Your task to perform on an android device: refresh tabs in the chrome app Image 0: 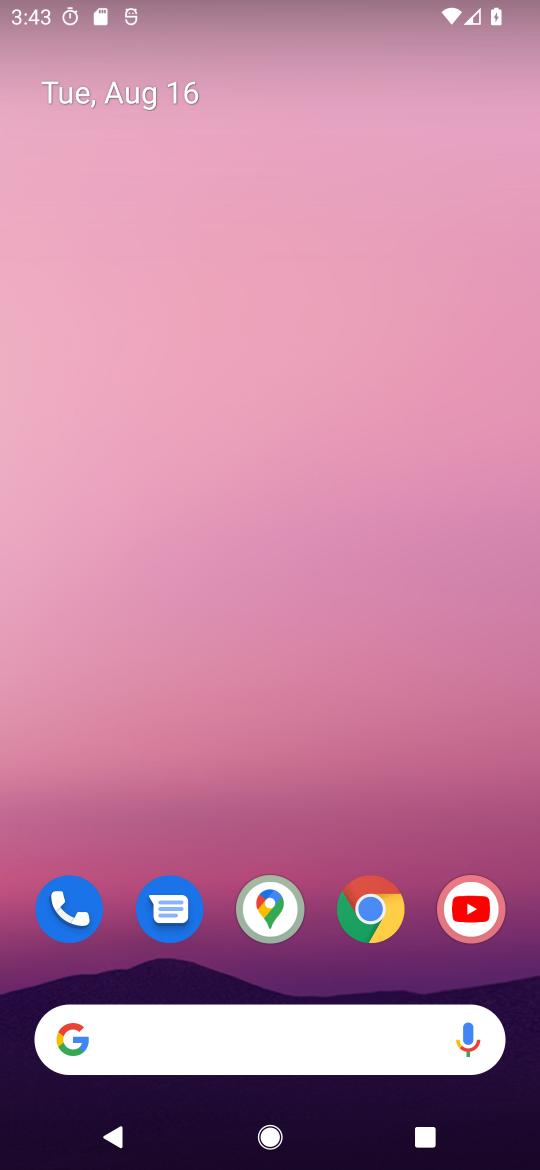
Step 0: drag from (263, 302) to (4, 885)
Your task to perform on an android device: refresh tabs in the chrome app Image 1: 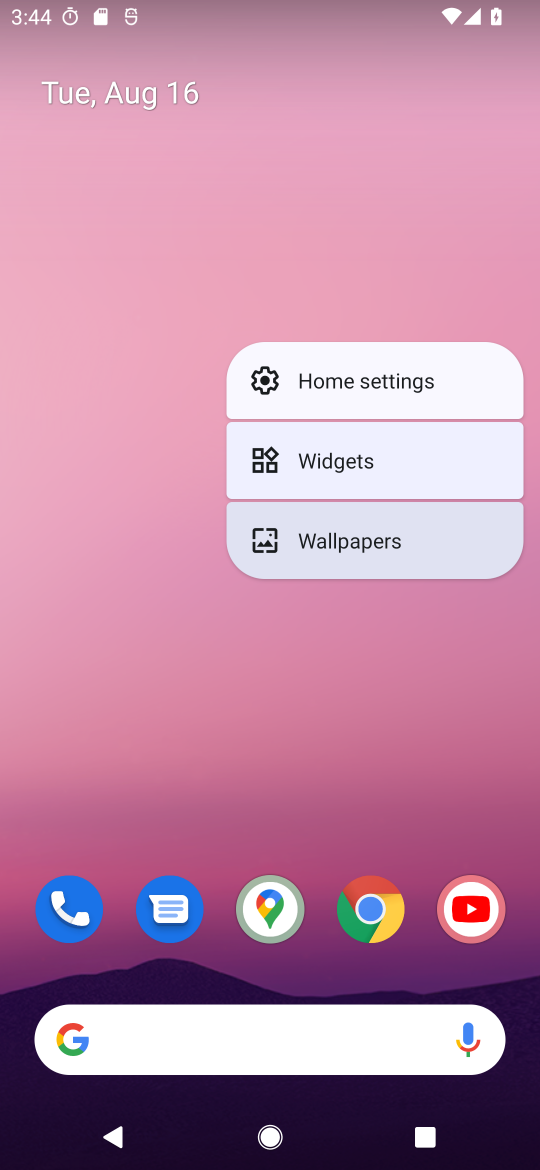
Step 1: click (365, 920)
Your task to perform on an android device: refresh tabs in the chrome app Image 2: 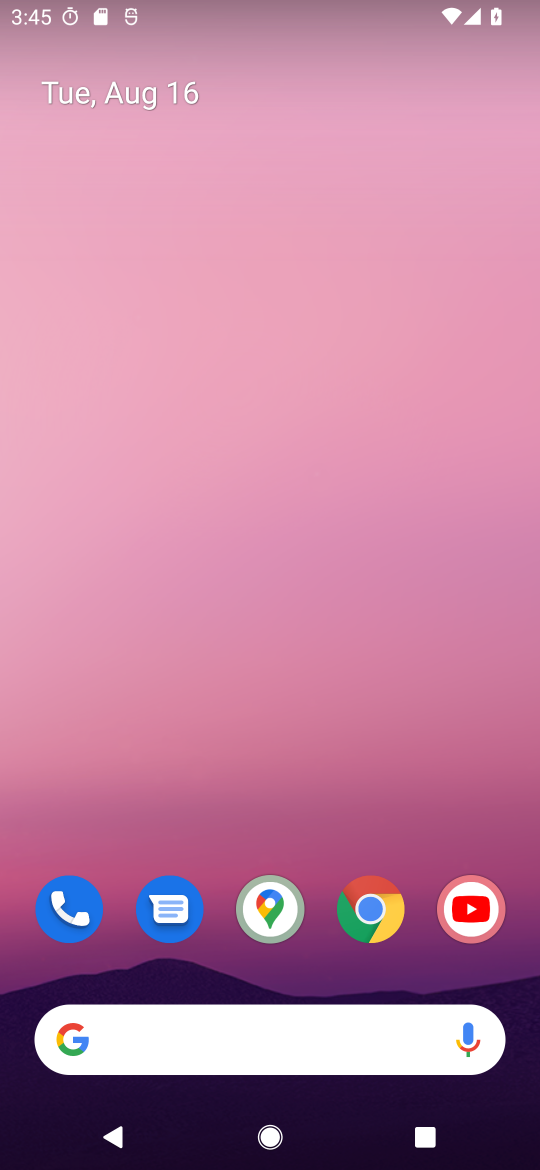
Step 2: click (365, 920)
Your task to perform on an android device: refresh tabs in the chrome app Image 3: 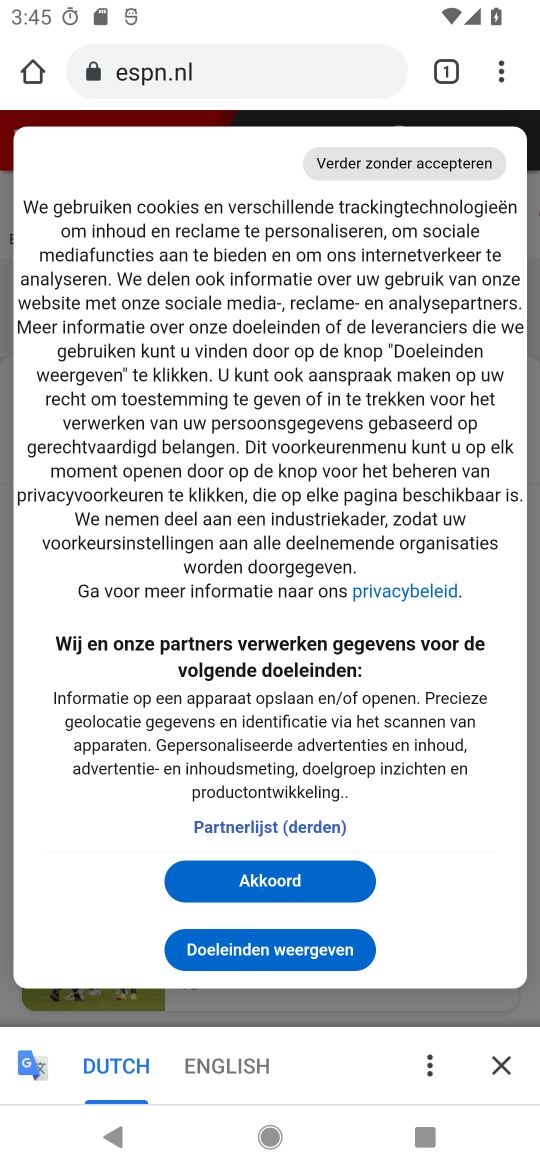
Step 3: click (499, 62)
Your task to perform on an android device: refresh tabs in the chrome app Image 4: 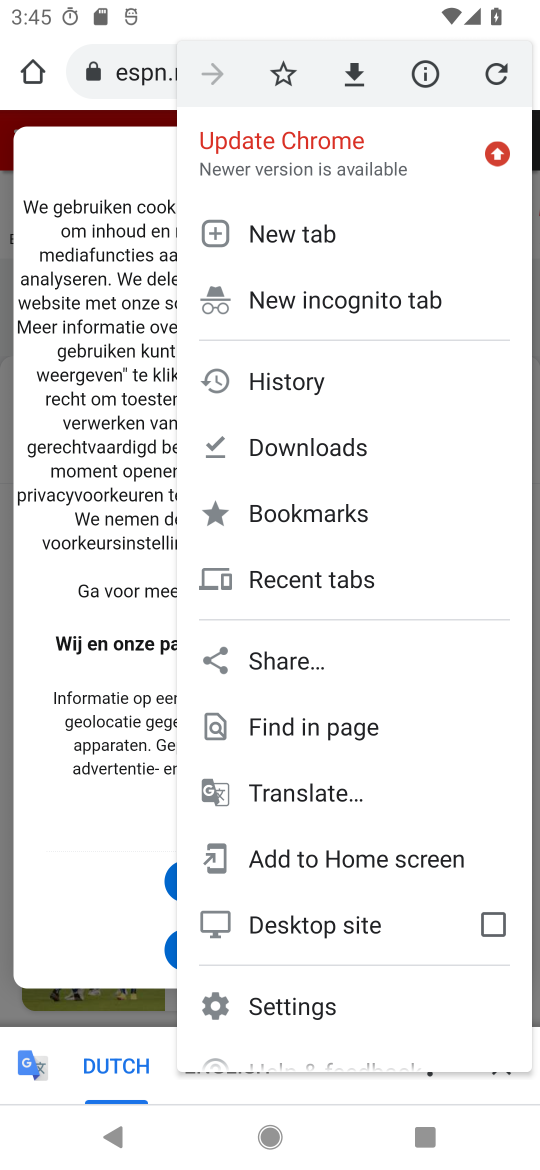
Step 4: click (493, 87)
Your task to perform on an android device: refresh tabs in the chrome app Image 5: 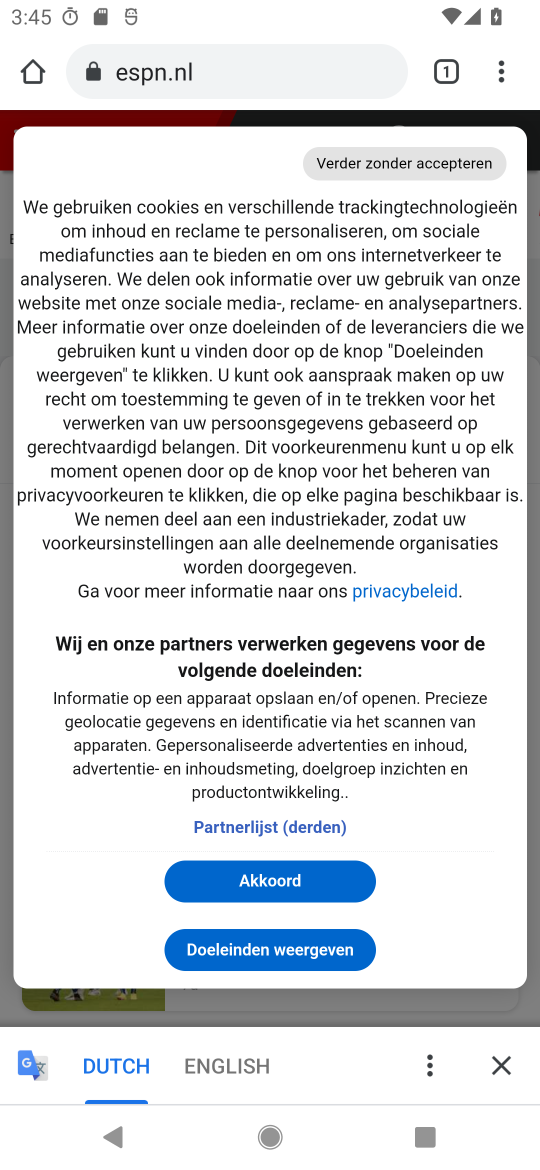
Step 5: task complete